Your task to perform on an android device: Check the weather Image 0: 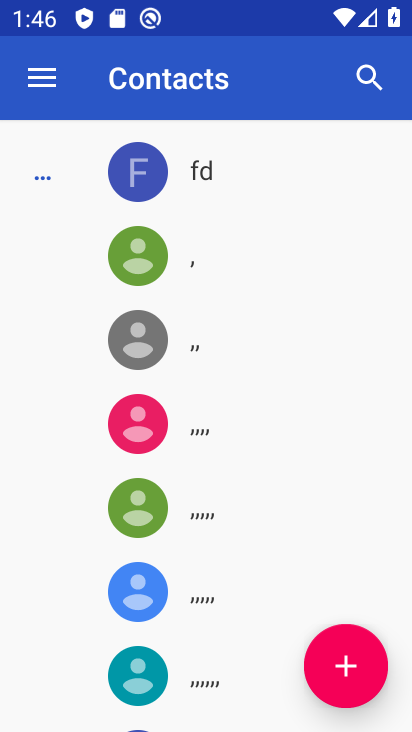
Step 0: press home button
Your task to perform on an android device: Check the weather Image 1: 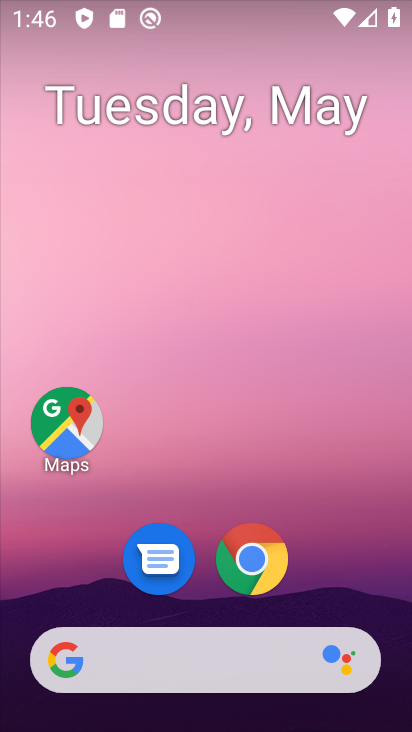
Step 1: drag from (392, 669) to (308, 194)
Your task to perform on an android device: Check the weather Image 2: 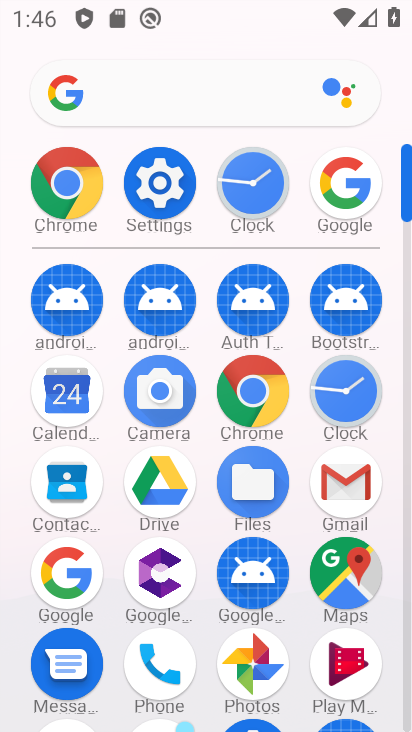
Step 2: click (70, 581)
Your task to perform on an android device: Check the weather Image 3: 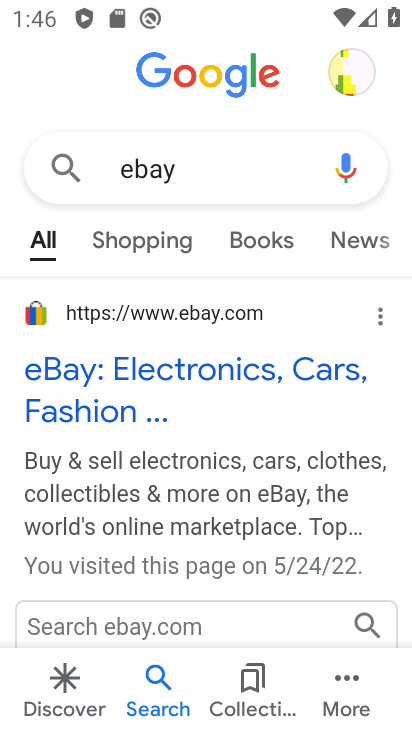
Step 3: press back button
Your task to perform on an android device: Check the weather Image 4: 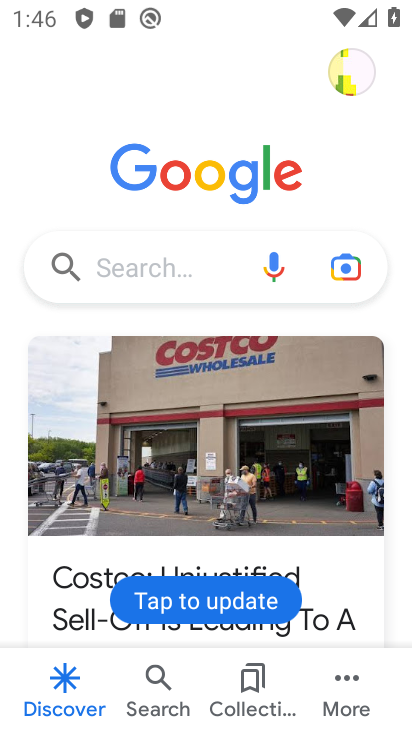
Step 4: click (98, 264)
Your task to perform on an android device: Check the weather Image 5: 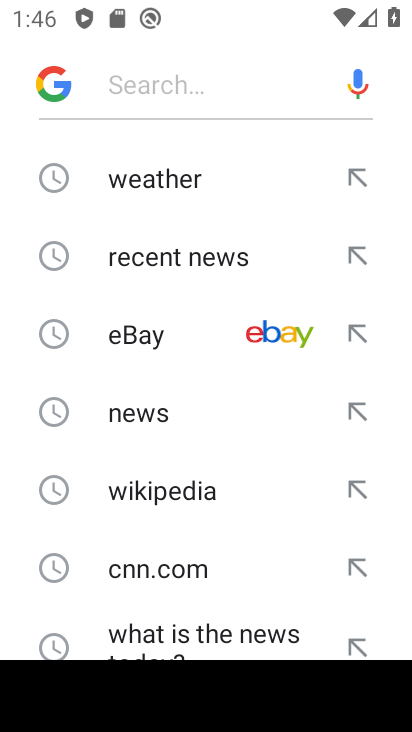
Step 5: click (194, 183)
Your task to perform on an android device: Check the weather Image 6: 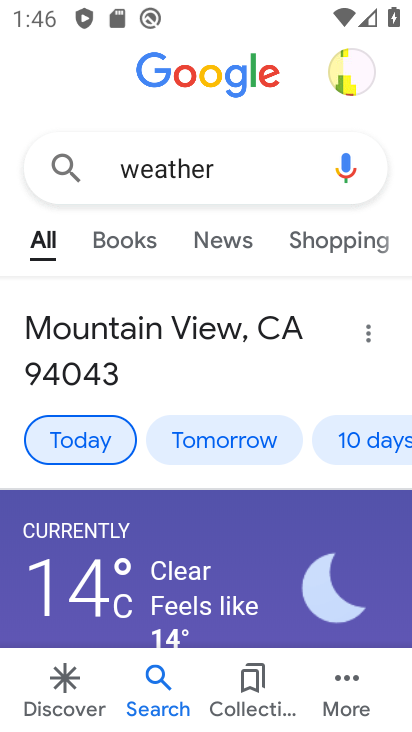
Step 6: task complete